Your task to perform on an android device: choose inbox layout in the gmail app Image 0: 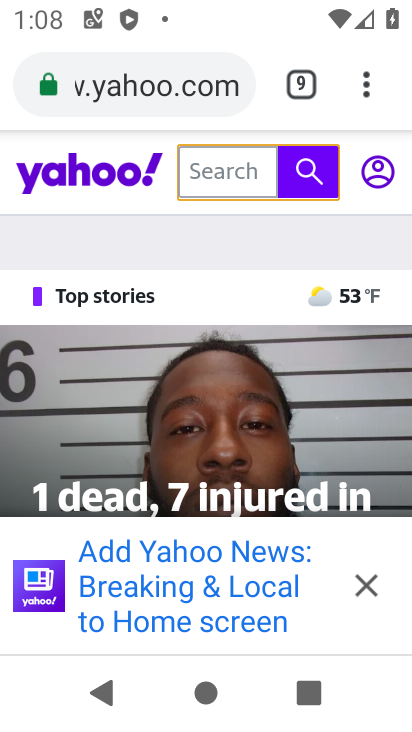
Step 0: press home button
Your task to perform on an android device: choose inbox layout in the gmail app Image 1: 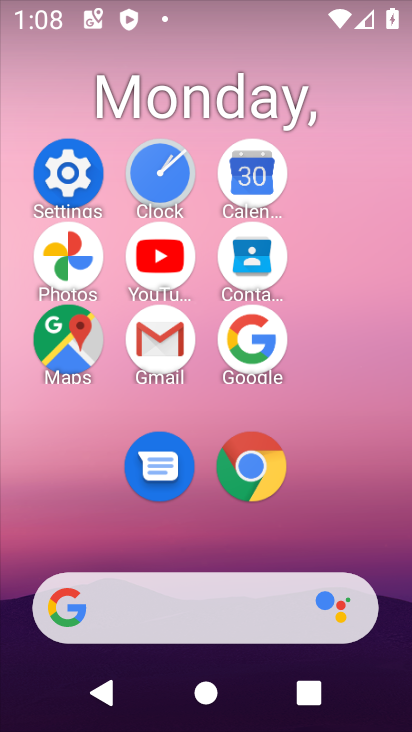
Step 1: click (165, 340)
Your task to perform on an android device: choose inbox layout in the gmail app Image 2: 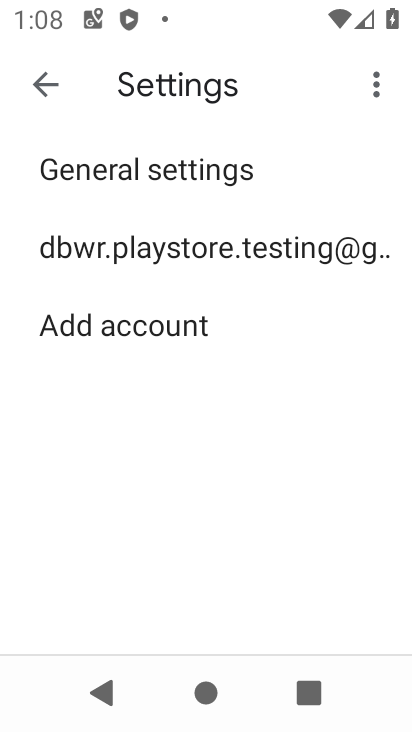
Step 2: click (32, 83)
Your task to perform on an android device: choose inbox layout in the gmail app Image 3: 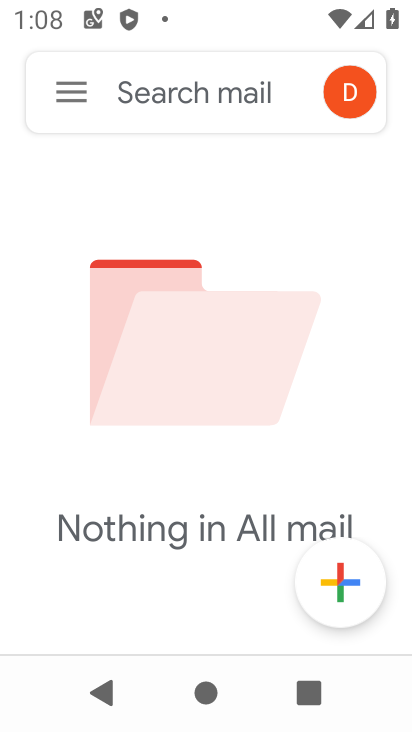
Step 3: click (72, 86)
Your task to perform on an android device: choose inbox layout in the gmail app Image 4: 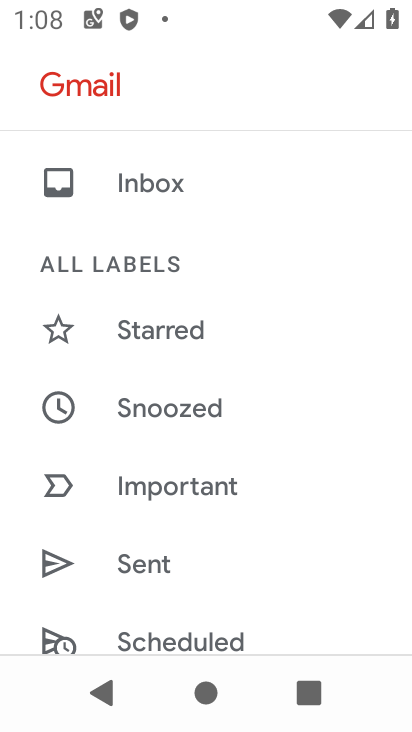
Step 4: drag from (223, 585) to (201, 145)
Your task to perform on an android device: choose inbox layout in the gmail app Image 5: 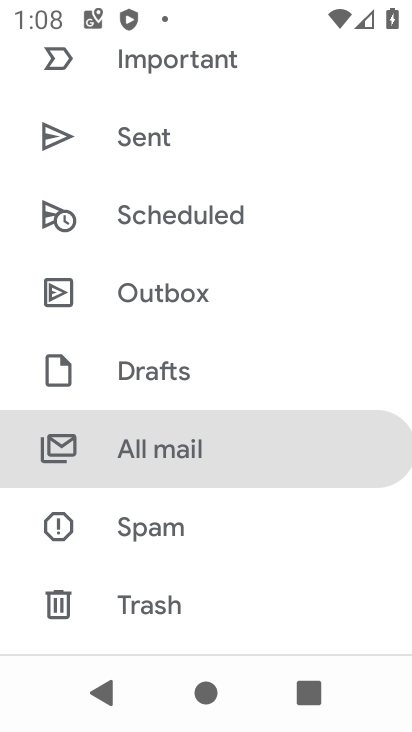
Step 5: drag from (193, 558) to (164, 104)
Your task to perform on an android device: choose inbox layout in the gmail app Image 6: 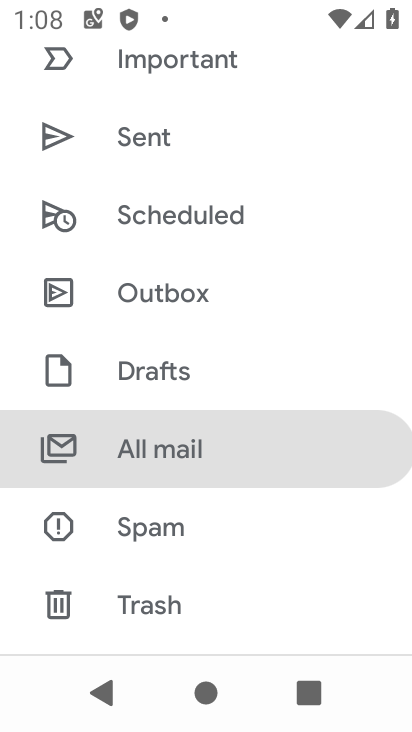
Step 6: drag from (202, 548) to (325, 139)
Your task to perform on an android device: choose inbox layout in the gmail app Image 7: 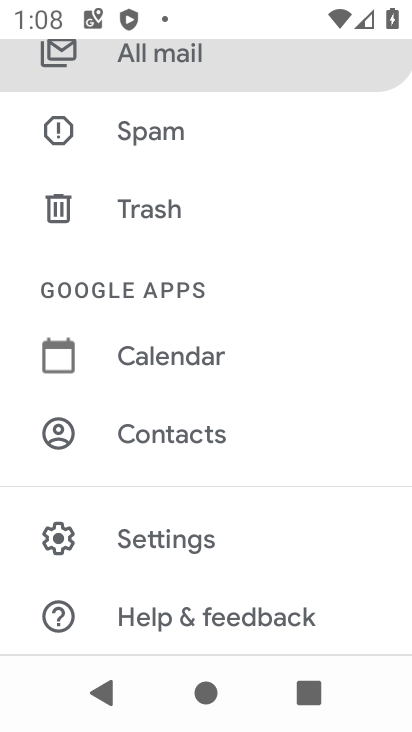
Step 7: click (187, 531)
Your task to perform on an android device: choose inbox layout in the gmail app Image 8: 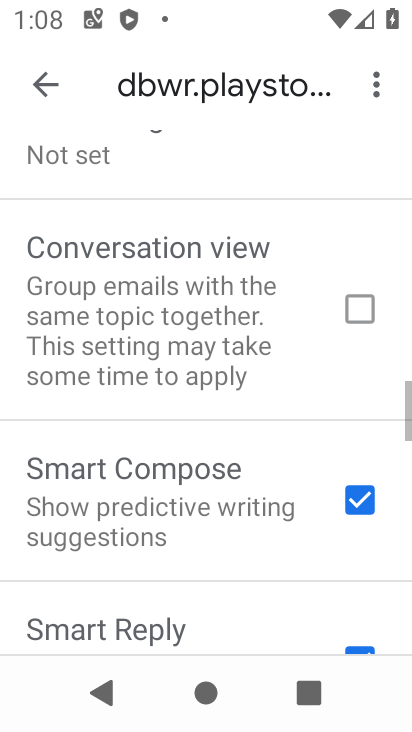
Step 8: drag from (264, 449) to (249, 138)
Your task to perform on an android device: choose inbox layout in the gmail app Image 9: 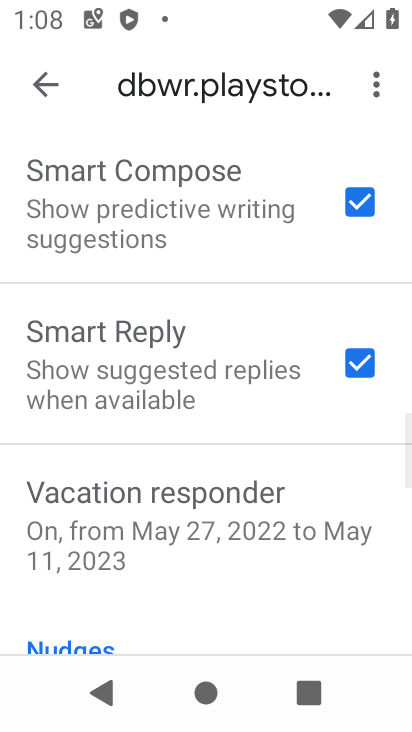
Step 9: drag from (270, 218) to (234, 627)
Your task to perform on an android device: choose inbox layout in the gmail app Image 10: 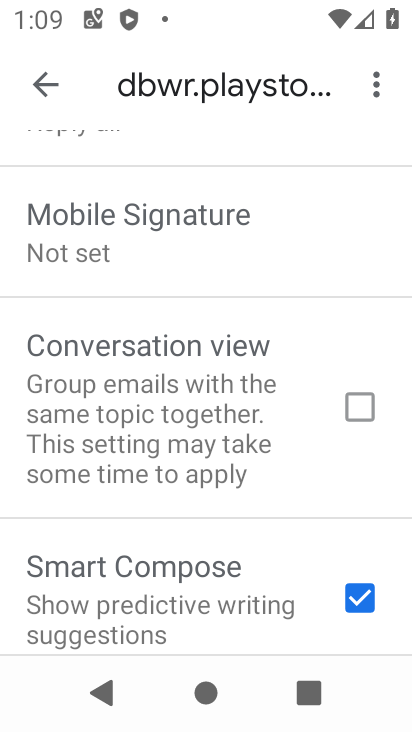
Step 10: drag from (263, 172) to (215, 572)
Your task to perform on an android device: choose inbox layout in the gmail app Image 11: 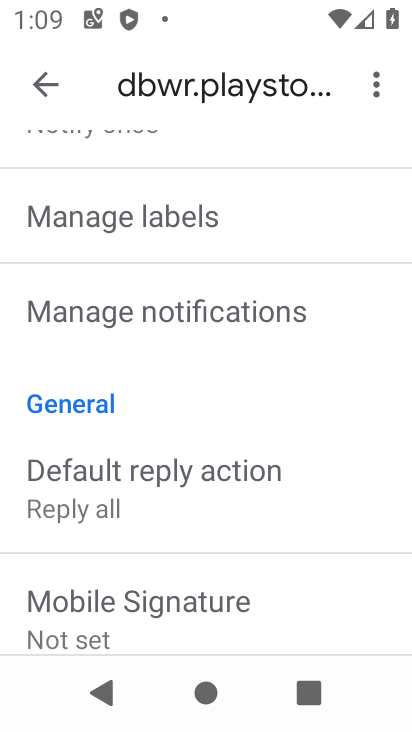
Step 11: drag from (259, 194) to (232, 530)
Your task to perform on an android device: choose inbox layout in the gmail app Image 12: 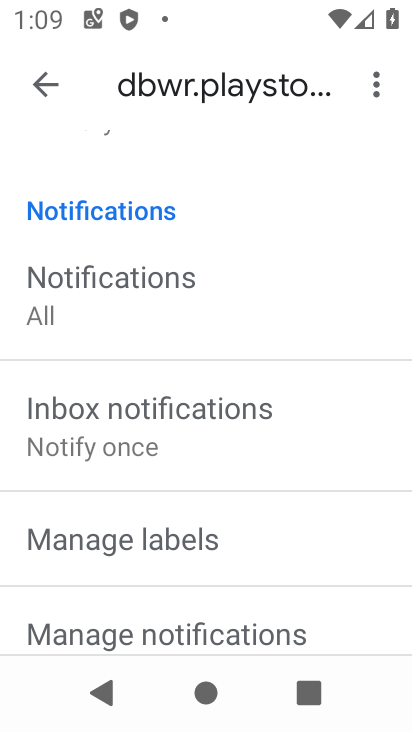
Step 12: drag from (313, 213) to (300, 488)
Your task to perform on an android device: choose inbox layout in the gmail app Image 13: 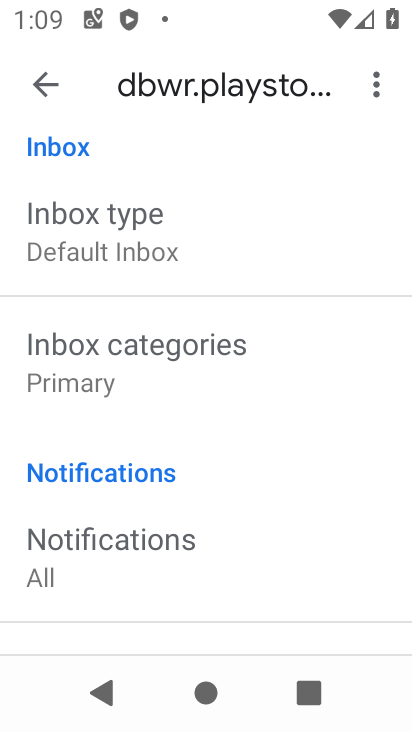
Step 13: click (218, 233)
Your task to perform on an android device: choose inbox layout in the gmail app Image 14: 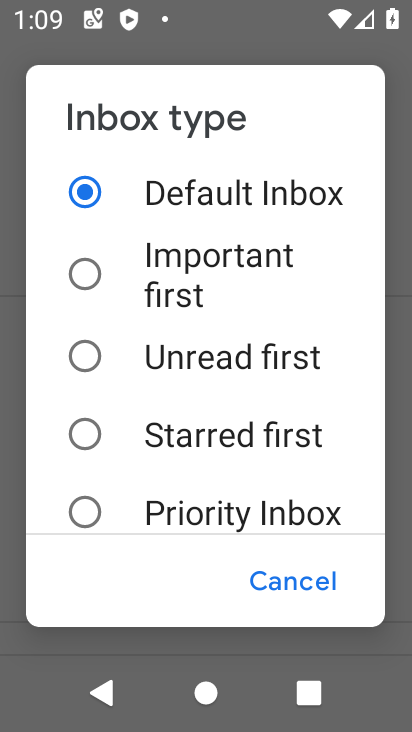
Step 14: task complete